Your task to perform on an android device: turn off translation in the chrome app Image 0: 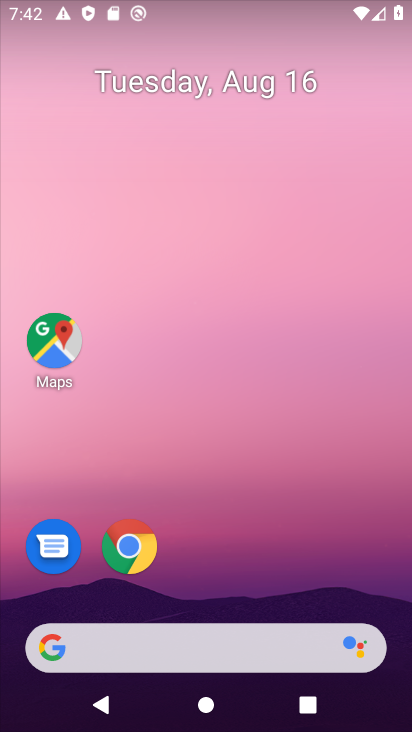
Step 0: click (129, 549)
Your task to perform on an android device: turn off translation in the chrome app Image 1: 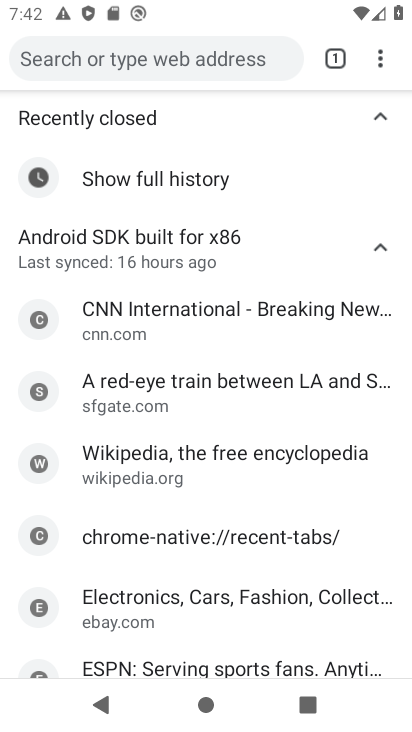
Step 1: click (379, 54)
Your task to perform on an android device: turn off translation in the chrome app Image 2: 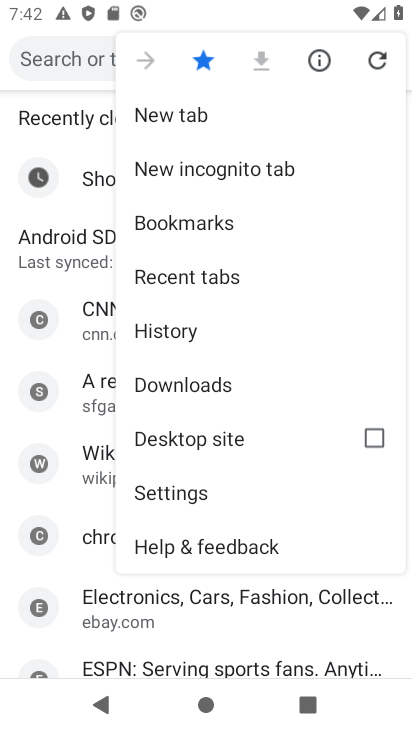
Step 2: click (195, 489)
Your task to perform on an android device: turn off translation in the chrome app Image 3: 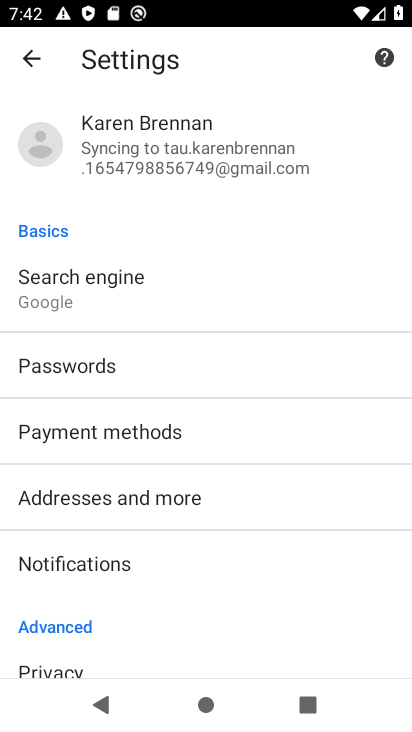
Step 3: drag from (201, 522) to (226, 48)
Your task to perform on an android device: turn off translation in the chrome app Image 4: 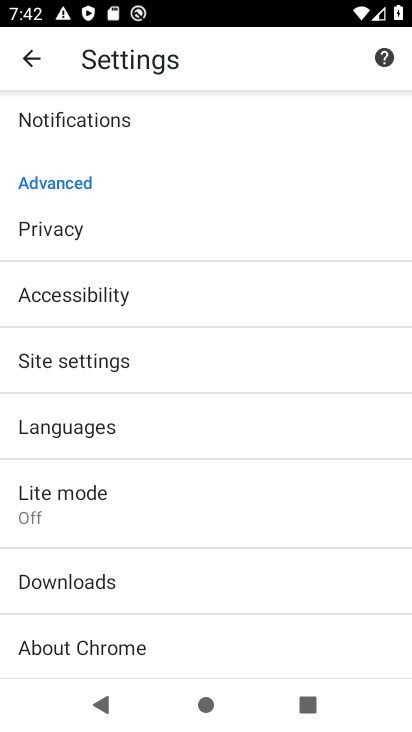
Step 4: click (196, 423)
Your task to perform on an android device: turn off translation in the chrome app Image 5: 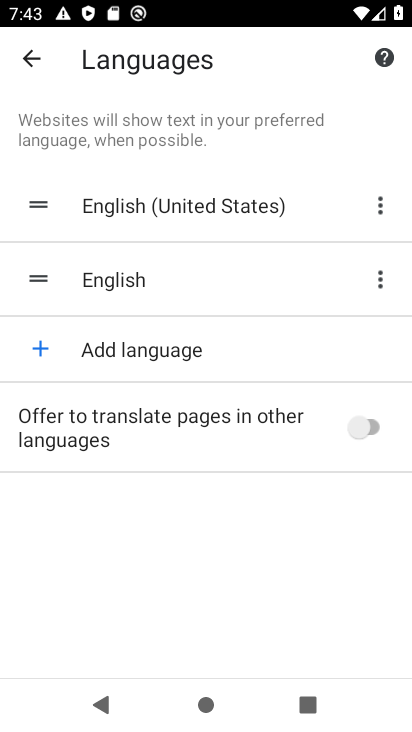
Step 5: task complete